Your task to perform on an android device: turn off airplane mode Image 0: 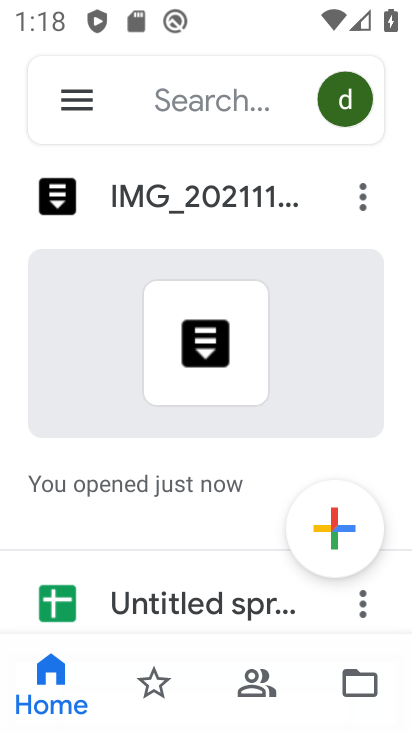
Step 0: drag from (328, 14) to (273, 730)
Your task to perform on an android device: turn off airplane mode Image 1: 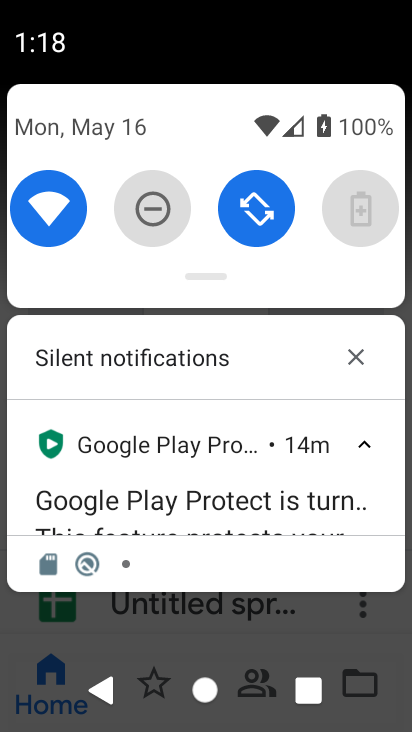
Step 1: task complete